Your task to perform on an android device: turn on wifi Image 0: 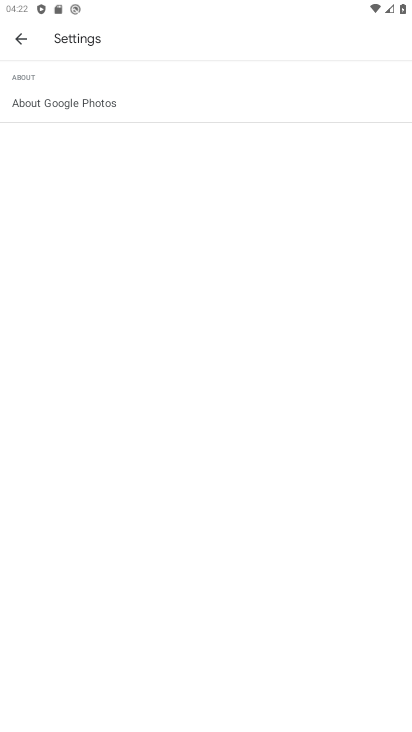
Step 0: press home button
Your task to perform on an android device: turn on wifi Image 1: 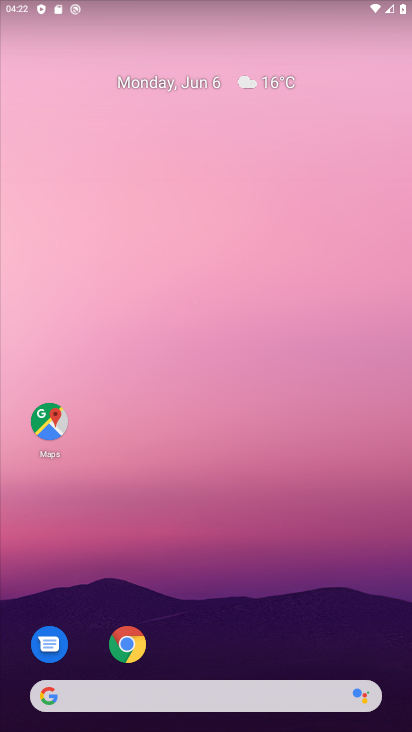
Step 1: drag from (397, 699) to (322, 8)
Your task to perform on an android device: turn on wifi Image 2: 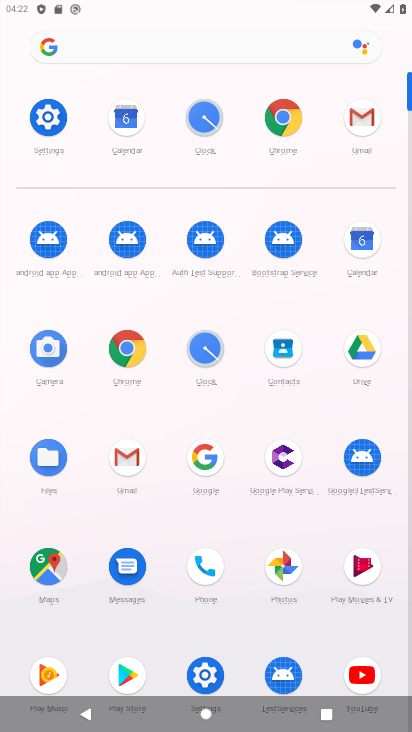
Step 2: click (45, 121)
Your task to perform on an android device: turn on wifi Image 3: 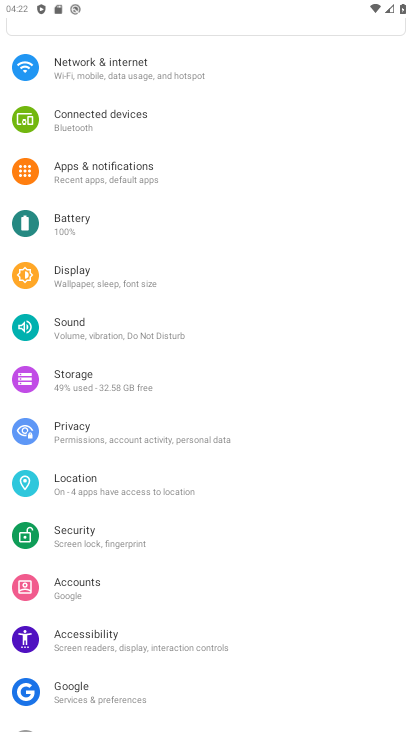
Step 3: click (122, 66)
Your task to perform on an android device: turn on wifi Image 4: 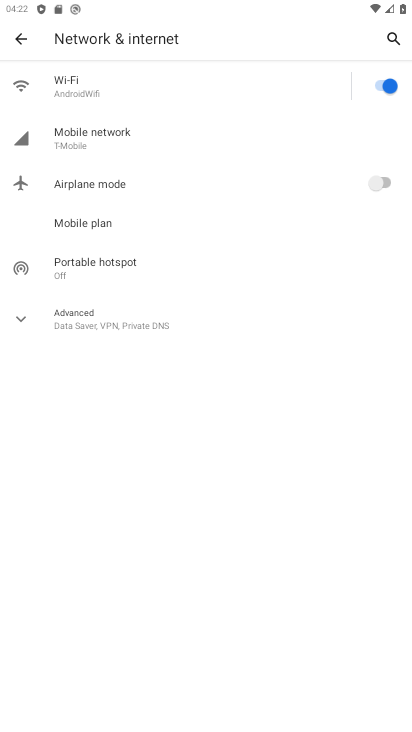
Step 4: task complete